Your task to perform on an android device: Show me productivity apps on the Play Store Image 0: 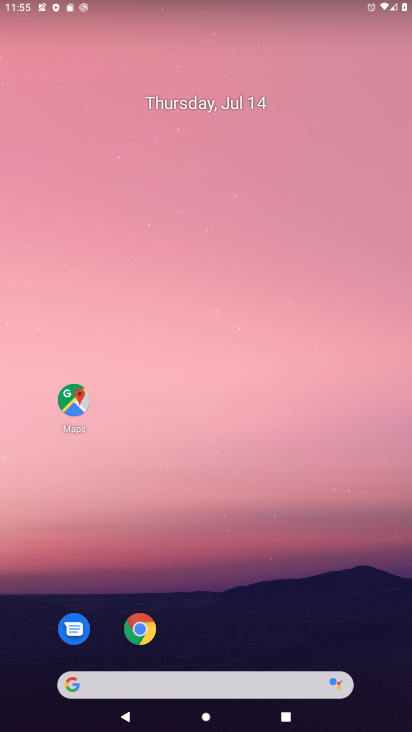
Step 0: press home button
Your task to perform on an android device: Show me productivity apps on the Play Store Image 1: 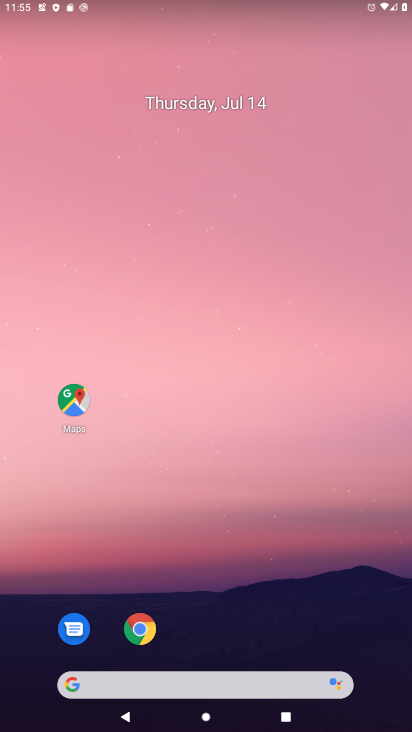
Step 1: drag from (239, 628) to (282, 0)
Your task to perform on an android device: Show me productivity apps on the Play Store Image 2: 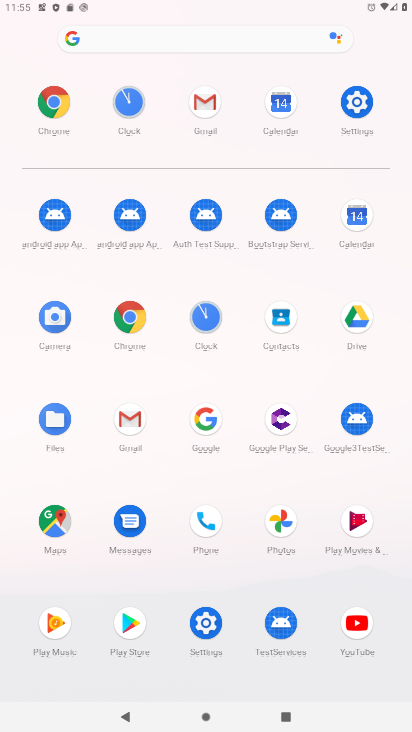
Step 2: click (129, 620)
Your task to perform on an android device: Show me productivity apps on the Play Store Image 3: 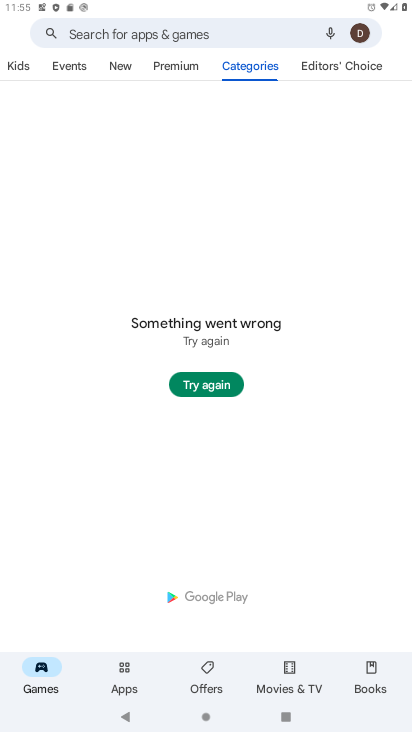
Step 3: click (202, 387)
Your task to perform on an android device: Show me productivity apps on the Play Store Image 4: 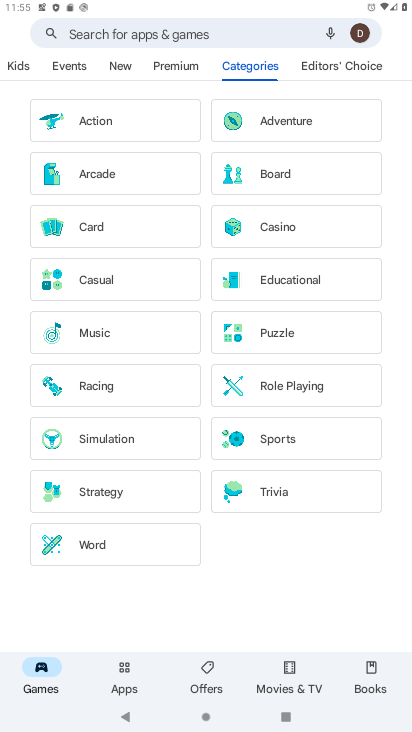
Step 4: click (134, 667)
Your task to perform on an android device: Show me productivity apps on the Play Store Image 5: 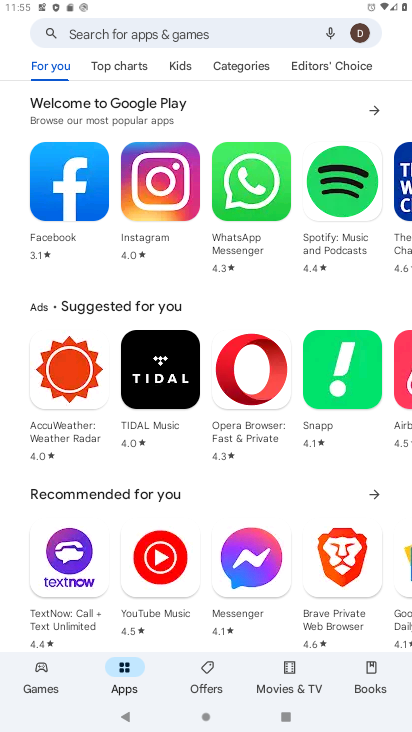
Step 5: click (237, 68)
Your task to perform on an android device: Show me productivity apps on the Play Store Image 6: 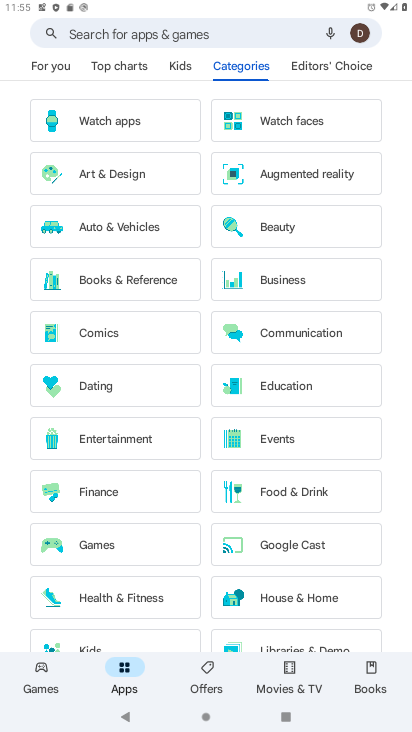
Step 6: drag from (382, 438) to (397, 18)
Your task to perform on an android device: Show me productivity apps on the Play Store Image 7: 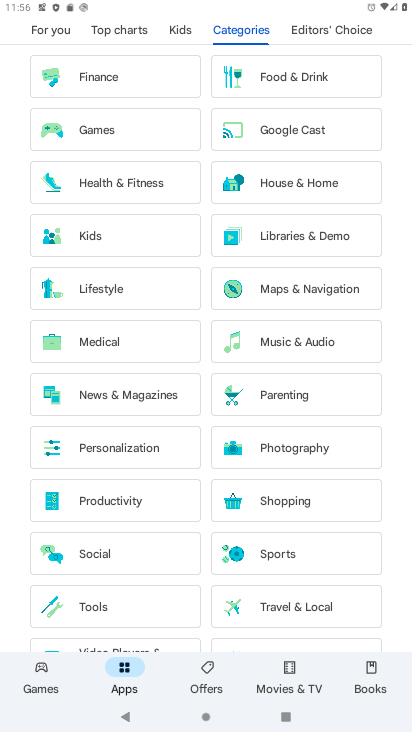
Step 7: click (101, 502)
Your task to perform on an android device: Show me productivity apps on the Play Store Image 8: 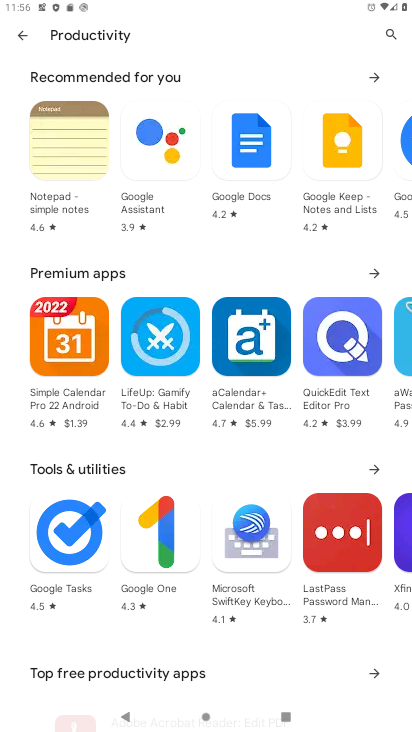
Step 8: task complete